Your task to perform on an android device: What's the weather? Image 0: 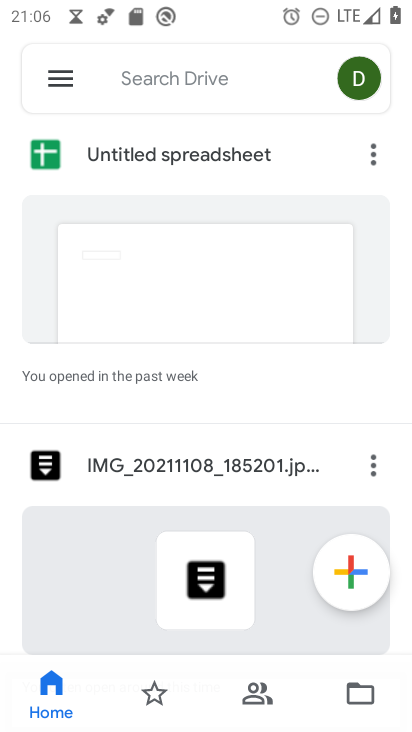
Step 0: press home button
Your task to perform on an android device: What's the weather? Image 1: 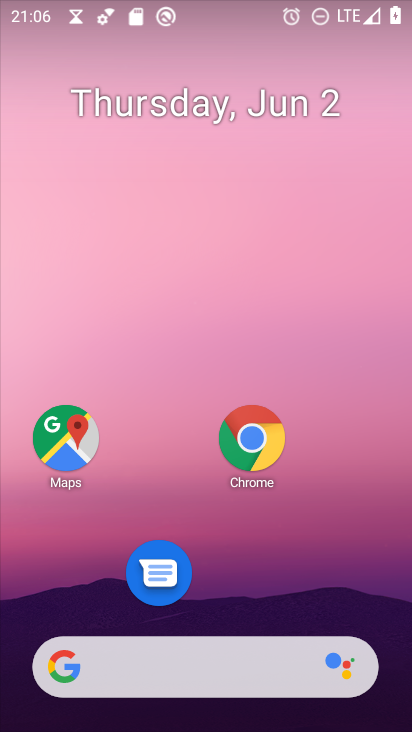
Step 1: click (70, 664)
Your task to perform on an android device: What's the weather? Image 2: 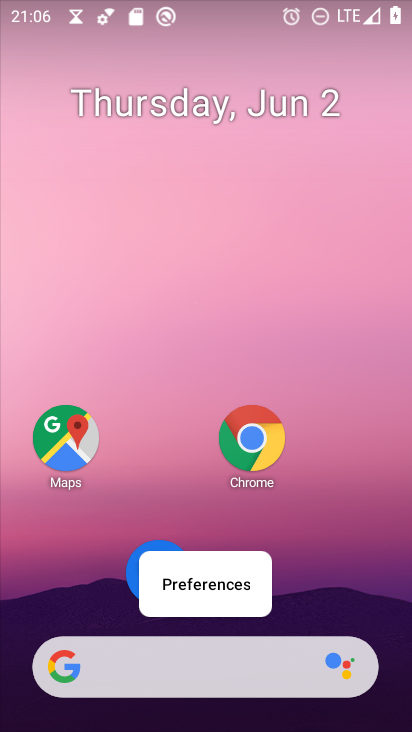
Step 2: click (75, 673)
Your task to perform on an android device: What's the weather? Image 3: 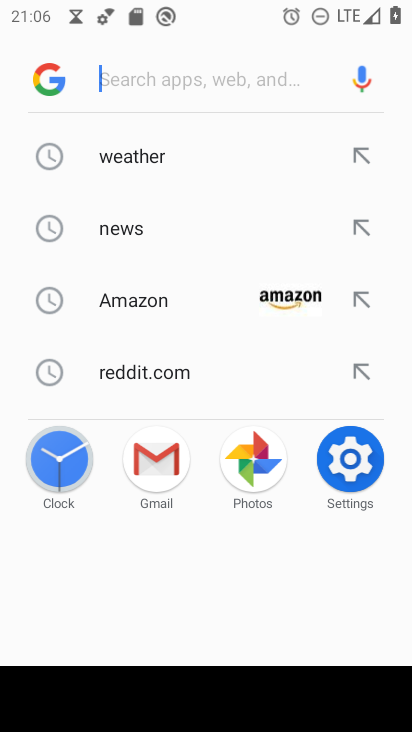
Step 3: click (137, 155)
Your task to perform on an android device: What's the weather? Image 4: 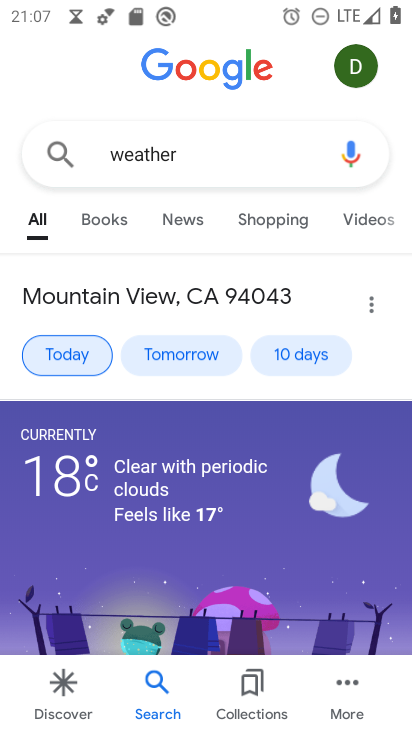
Step 4: task complete